Your task to perform on an android device: Find coffee shops on Maps Image 0: 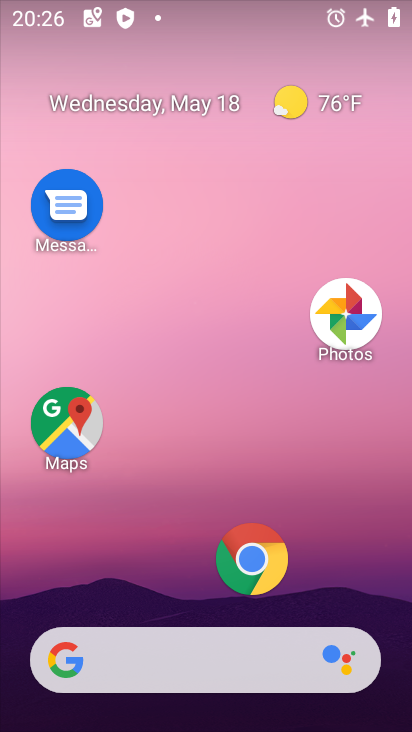
Step 0: drag from (230, 616) to (211, 80)
Your task to perform on an android device: Find coffee shops on Maps Image 1: 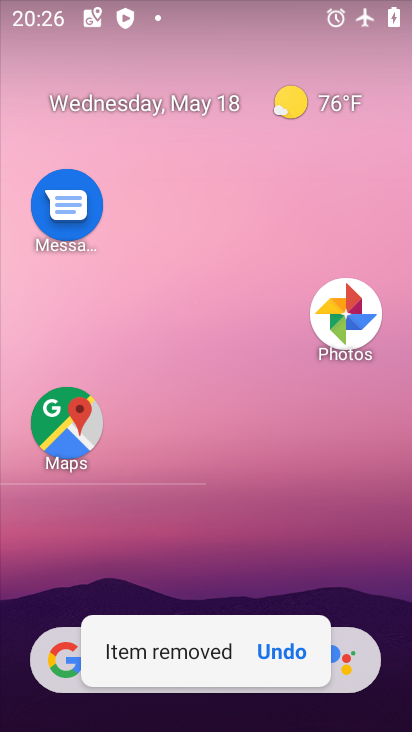
Step 1: drag from (222, 581) to (214, 97)
Your task to perform on an android device: Find coffee shops on Maps Image 2: 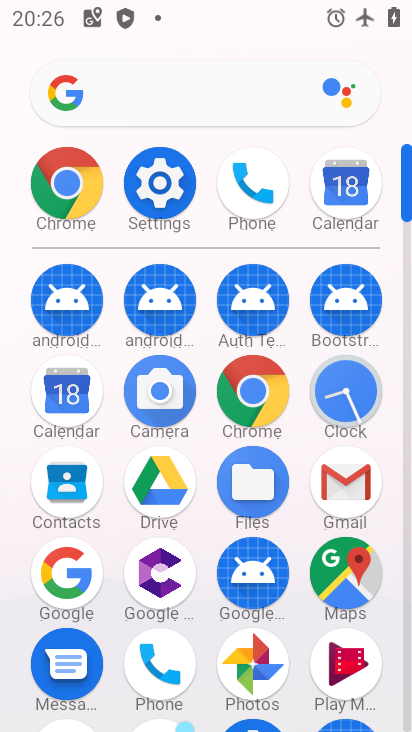
Step 2: click (348, 596)
Your task to perform on an android device: Find coffee shops on Maps Image 3: 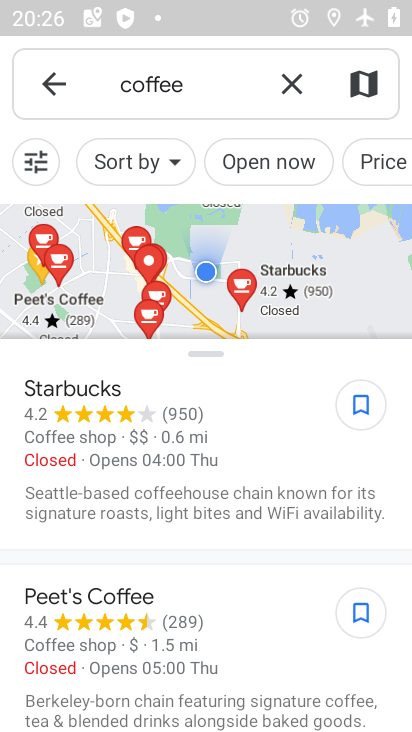
Step 3: task complete